Your task to perform on an android device: Go to Reddit.com Image 0: 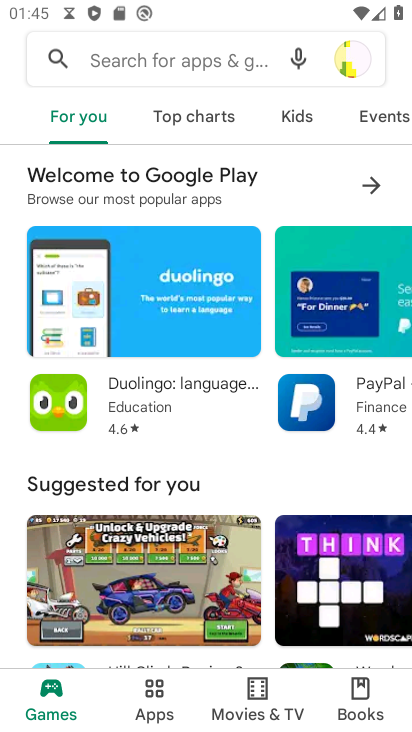
Step 0: press home button
Your task to perform on an android device: Go to Reddit.com Image 1: 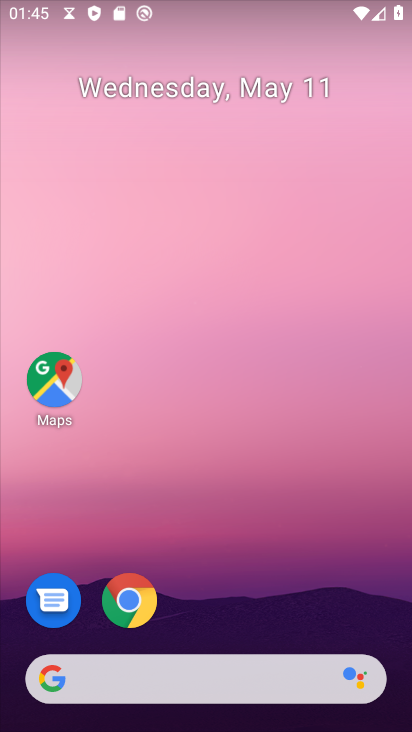
Step 1: click (234, 221)
Your task to perform on an android device: Go to Reddit.com Image 2: 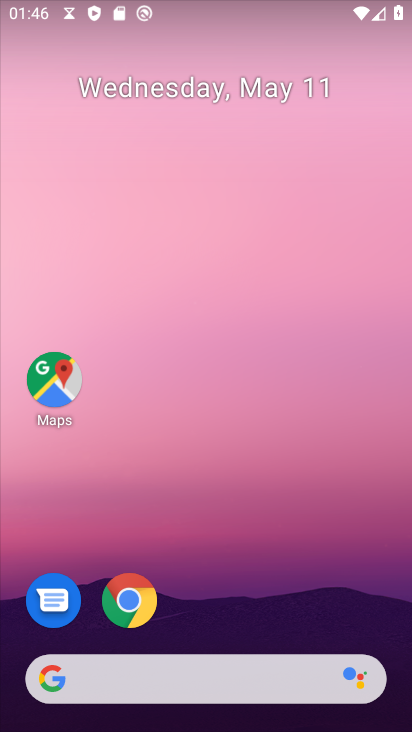
Step 2: drag from (244, 558) to (239, 124)
Your task to perform on an android device: Go to Reddit.com Image 3: 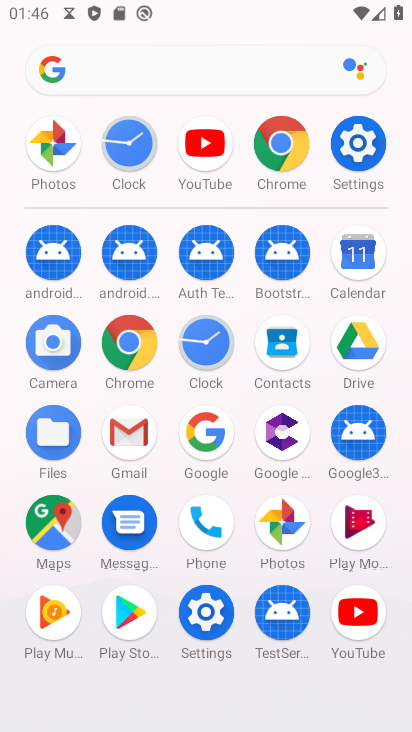
Step 3: click (272, 139)
Your task to perform on an android device: Go to Reddit.com Image 4: 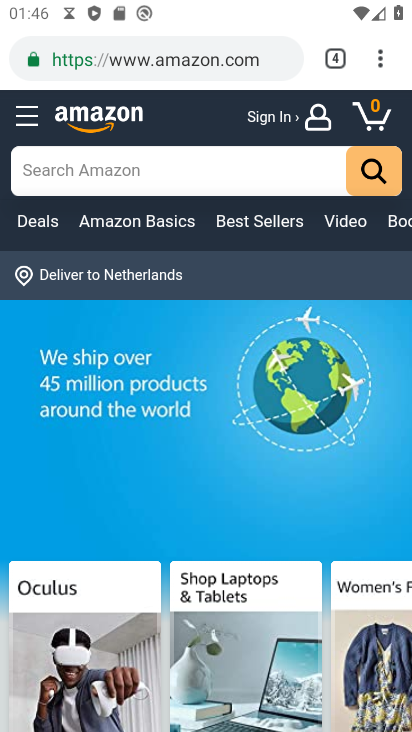
Step 4: click (362, 53)
Your task to perform on an android device: Go to Reddit.com Image 5: 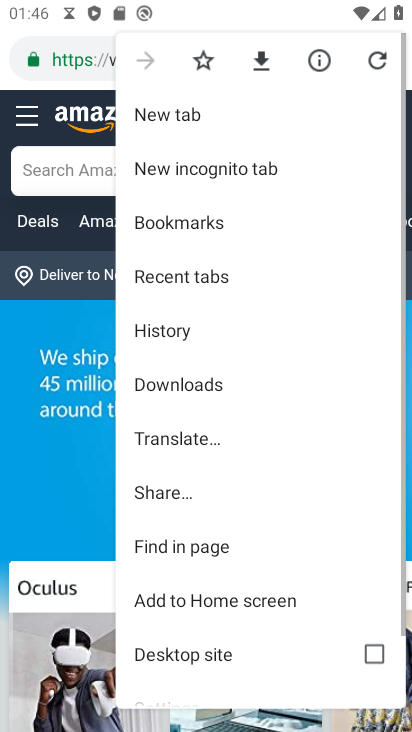
Step 5: click (199, 110)
Your task to perform on an android device: Go to Reddit.com Image 6: 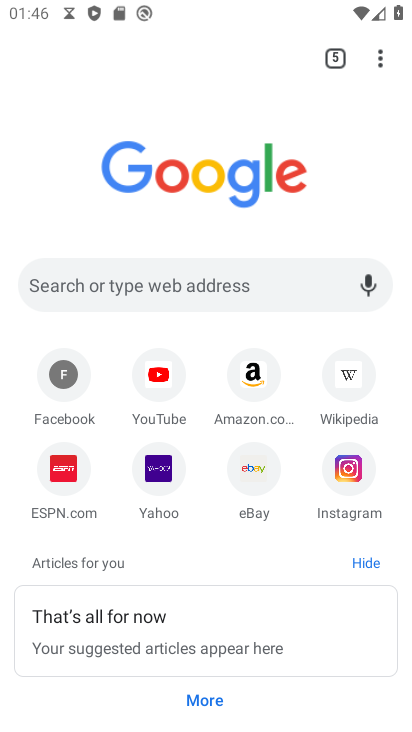
Step 6: click (180, 285)
Your task to perform on an android device: Go to Reddit.com Image 7: 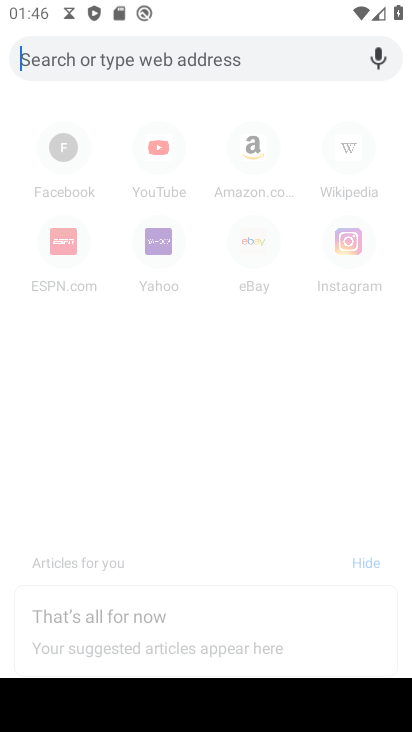
Step 7: type "Reddit.com"
Your task to perform on an android device: Go to Reddit.com Image 8: 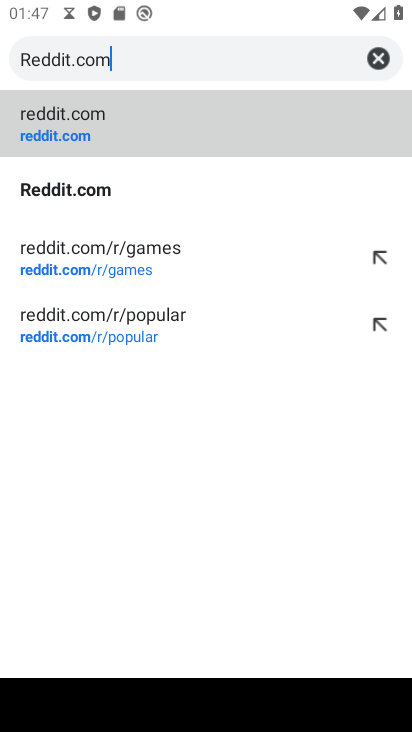
Step 8: click (104, 128)
Your task to perform on an android device: Go to Reddit.com Image 9: 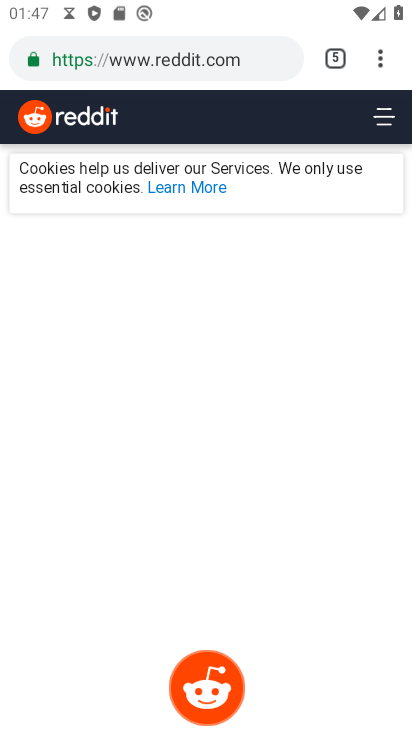
Step 9: task complete